Your task to perform on an android device: Open privacy settings Image 0: 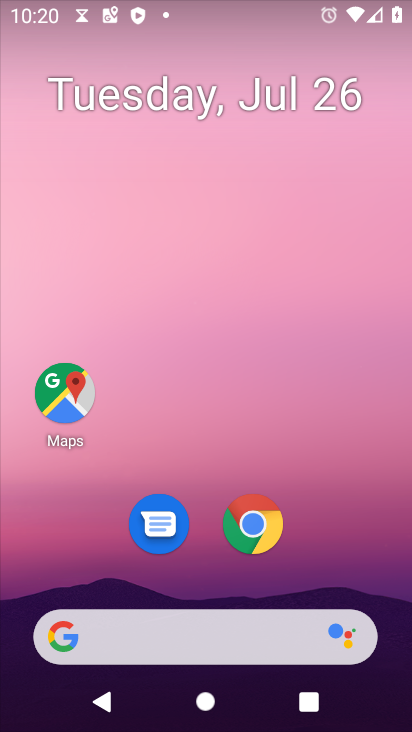
Step 0: press home button
Your task to perform on an android device: Open privacy settings Image 1: 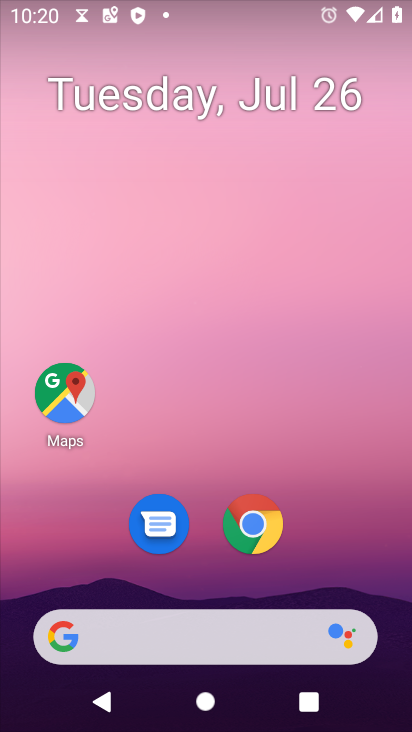
Step 1: drag from (154, 637) to (326, 5)
Your task to perform on an android device: Open privacy settings Image 2: 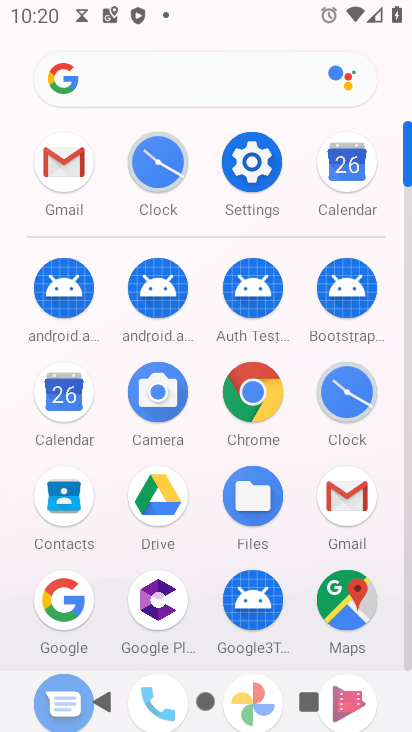
Step 2: click (257, 174)
Your task to perform on an android device: Open privacy settings Image 3: 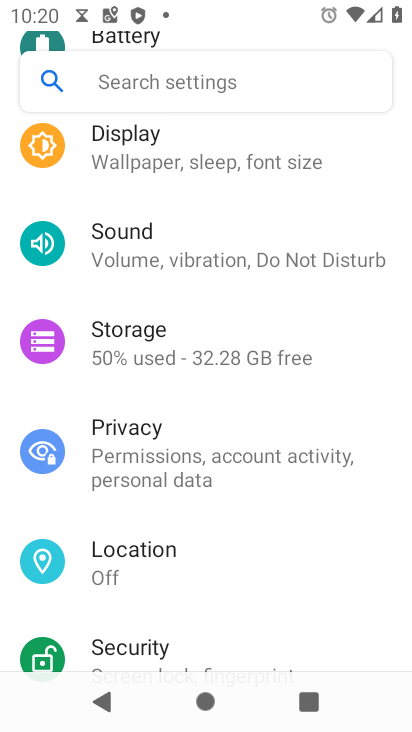
Step 3: click (140, 455)
Your task to perform on an android device: Open privacy settings Image 4: 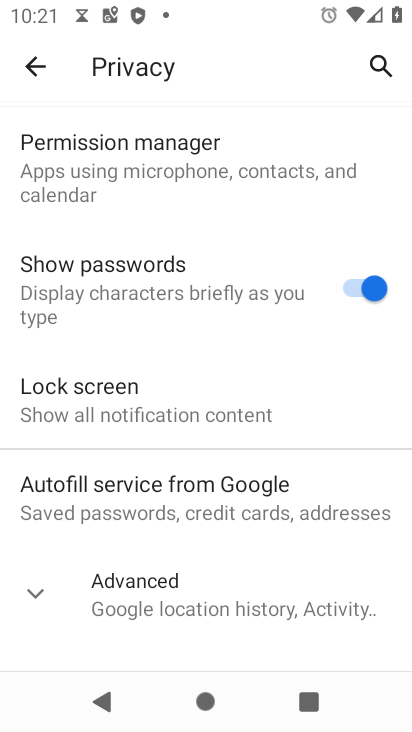
Step 4: task complete